Your task to perform on an android device: WHat are the new products by Samsung on eBay? Image 0: 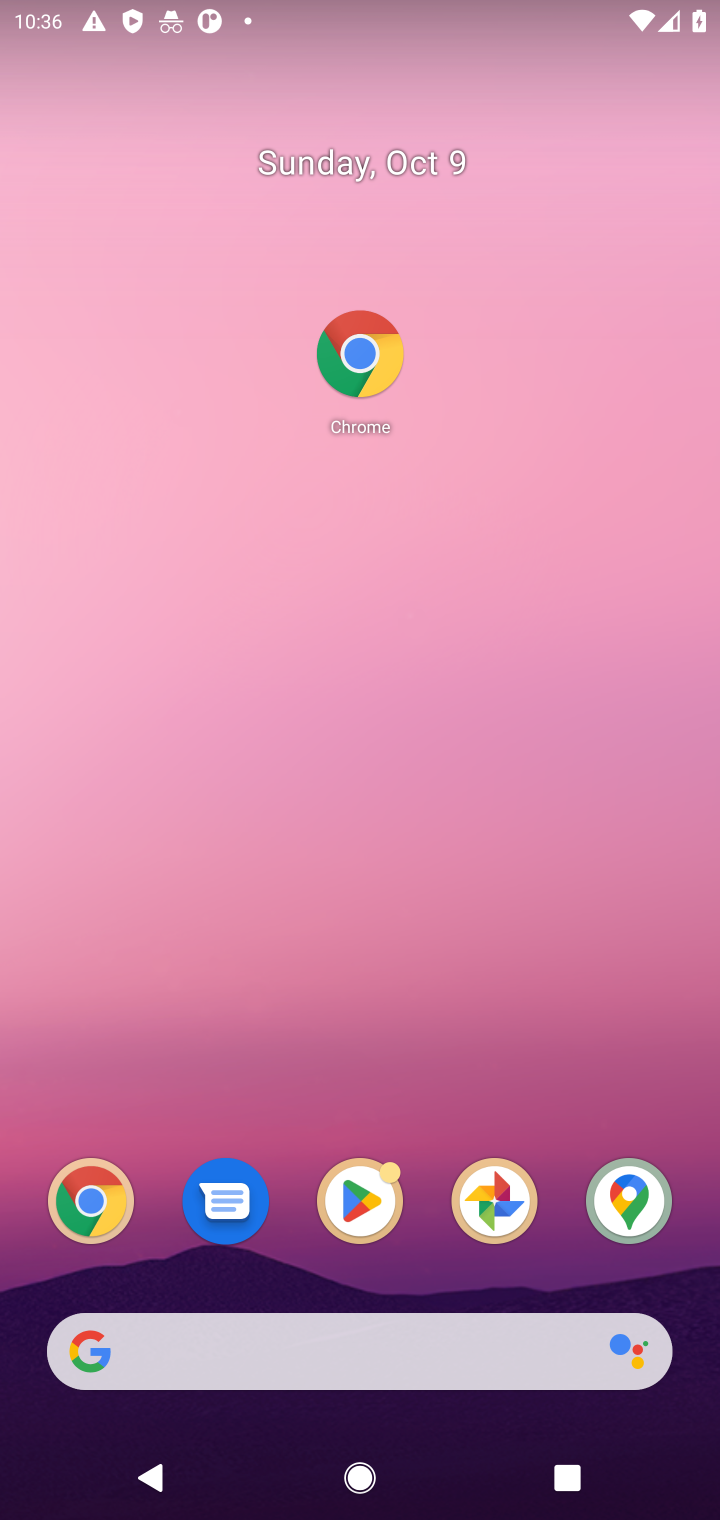
Step 0: click (73, 1211)
Your task to perform on an android device: WHat are the new products by Samsung on eBay? Image 1: 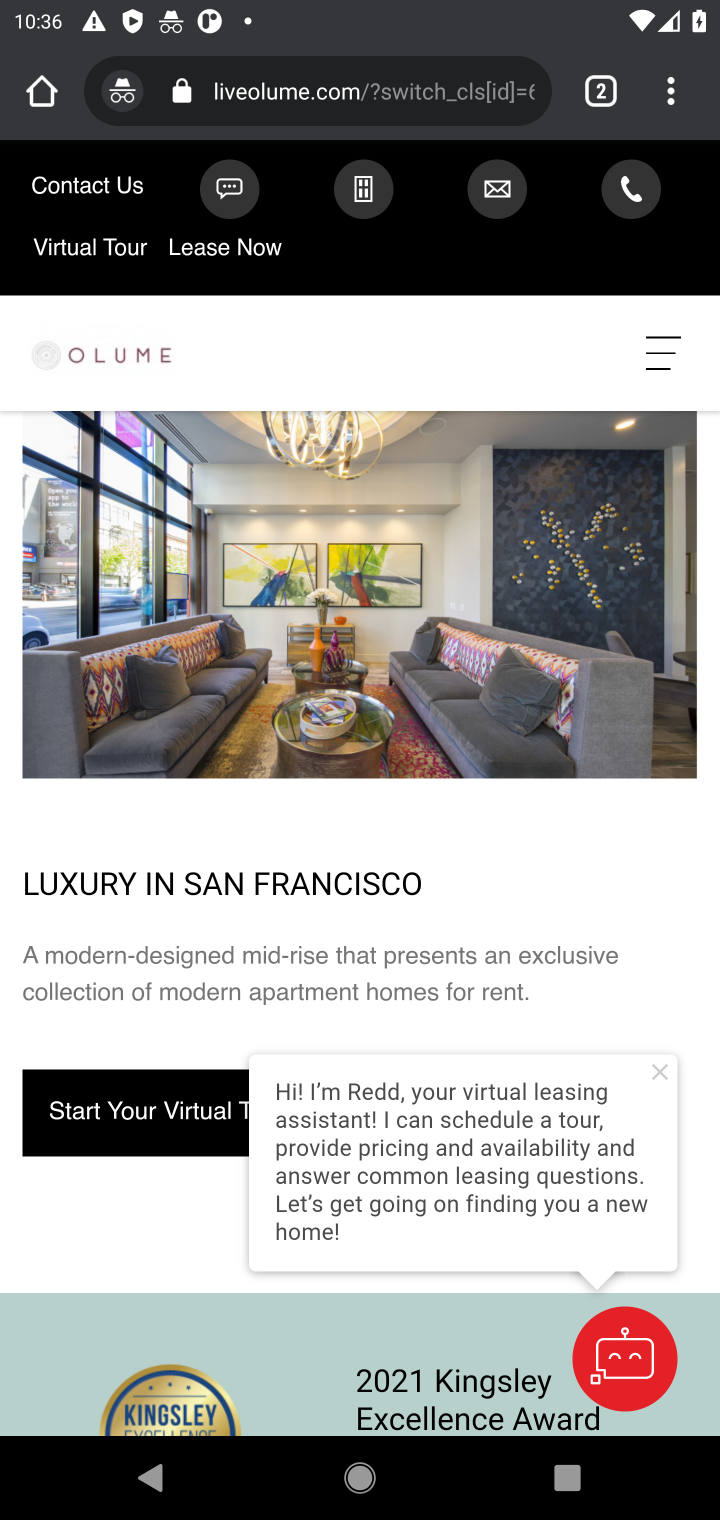
Step 1: click (333, 89)
Your task to perform on an android device: WHat are the new products by Samsung on eBay? Image 2: 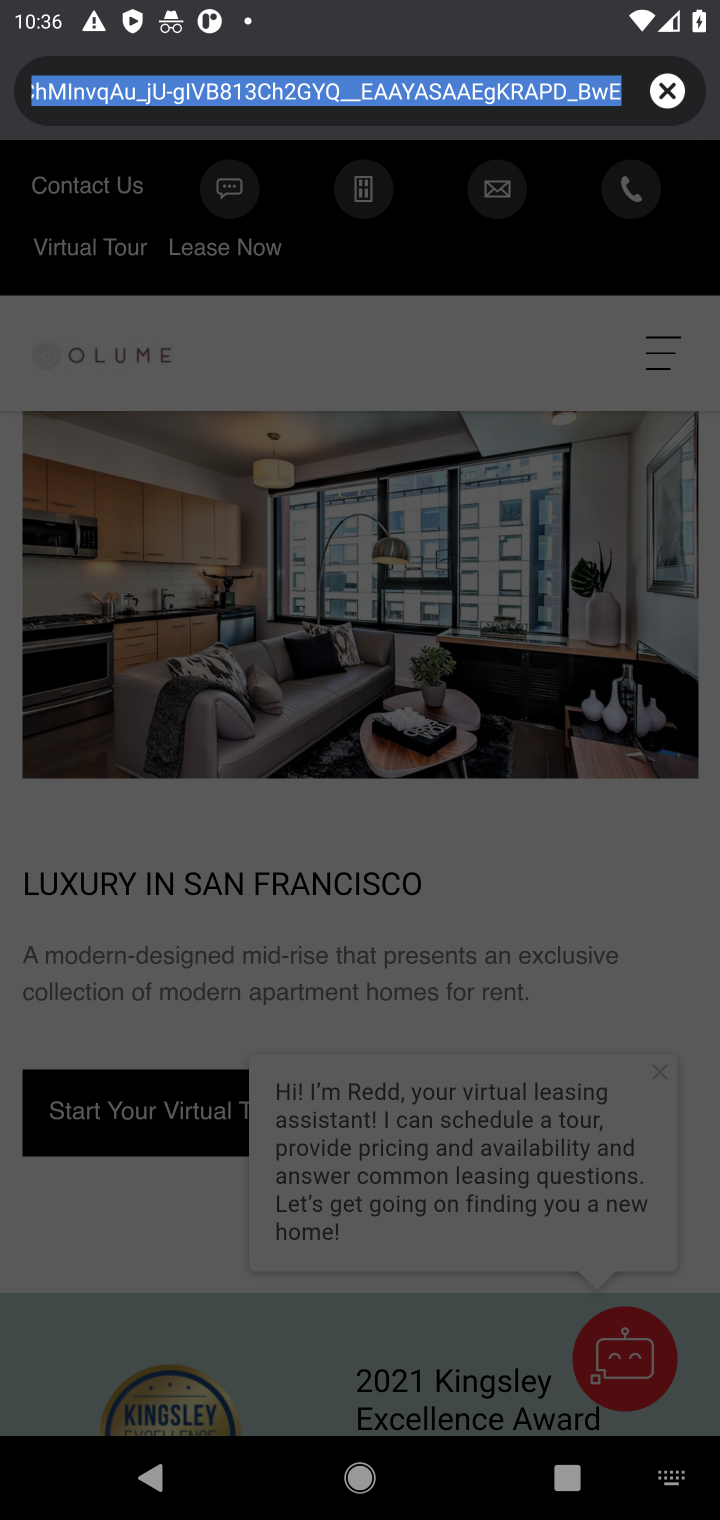
Step 2: type "WHat are the new products by Samsung on eBay?"
Your task to perform on an android device: WHat are the new products by Samsung on eBay? Image 3: 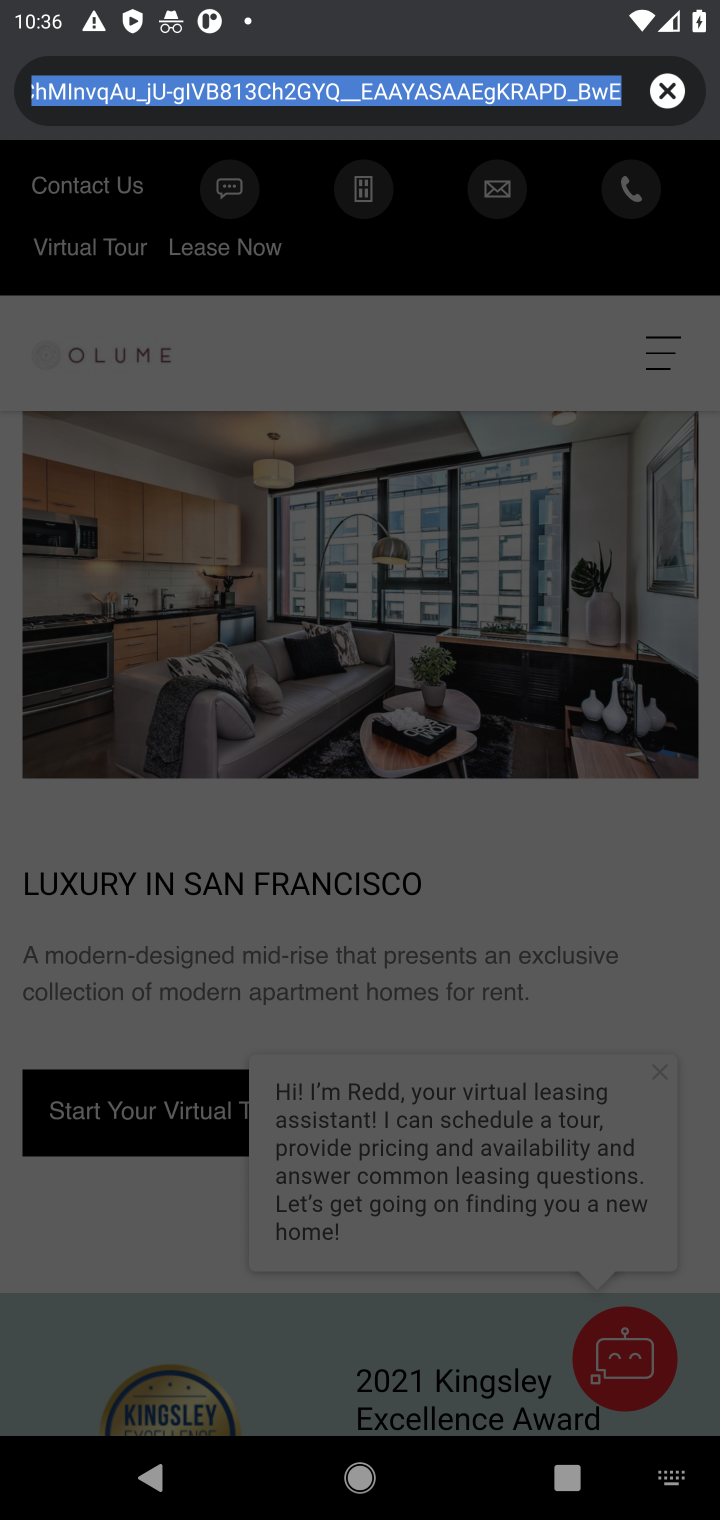
Step 3: click (421, 102)
Your task to perform on an android device: WHat are the new products by Samsung on eBay? Image 4: 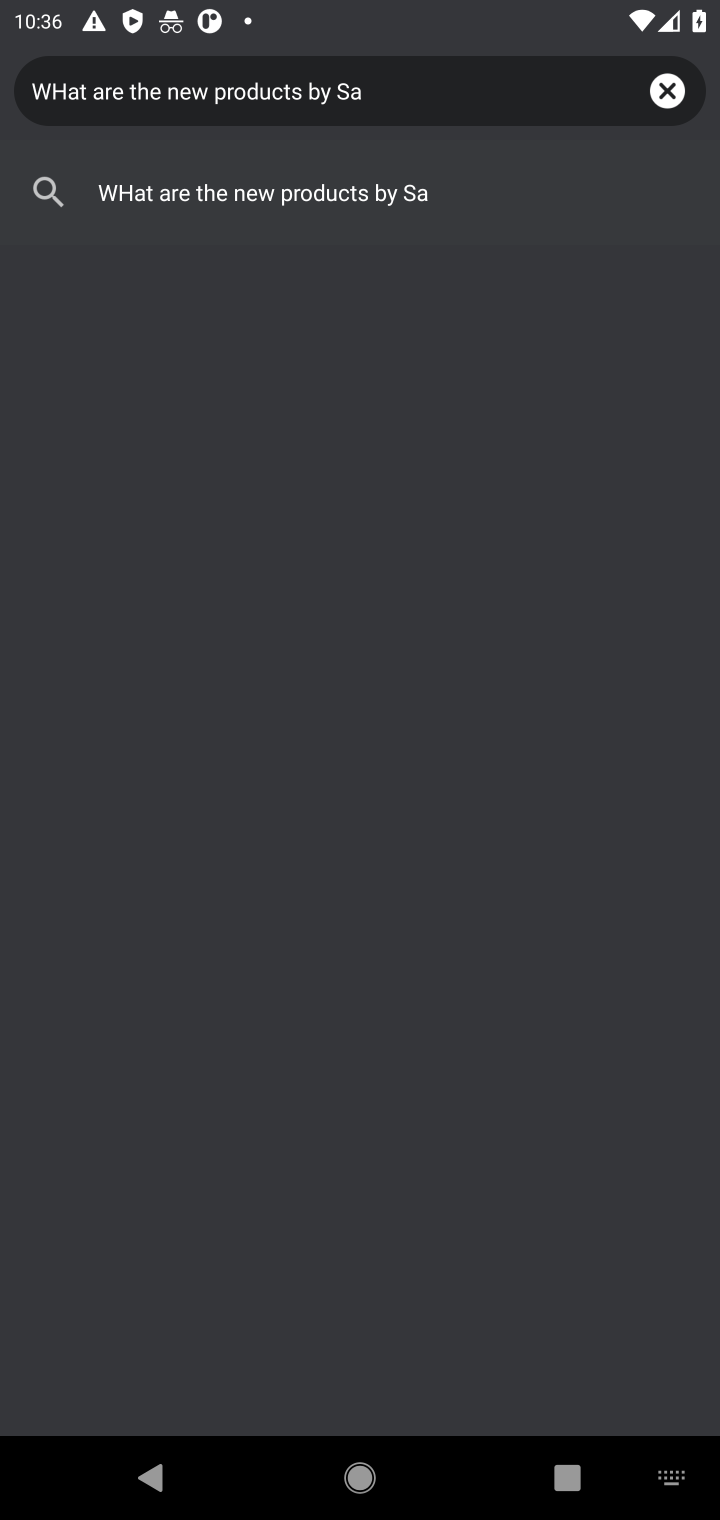
Step 4: click (460, 85)
Your task to perform on an android device: WHat are the new products by Samsung on eBay? Image 5: 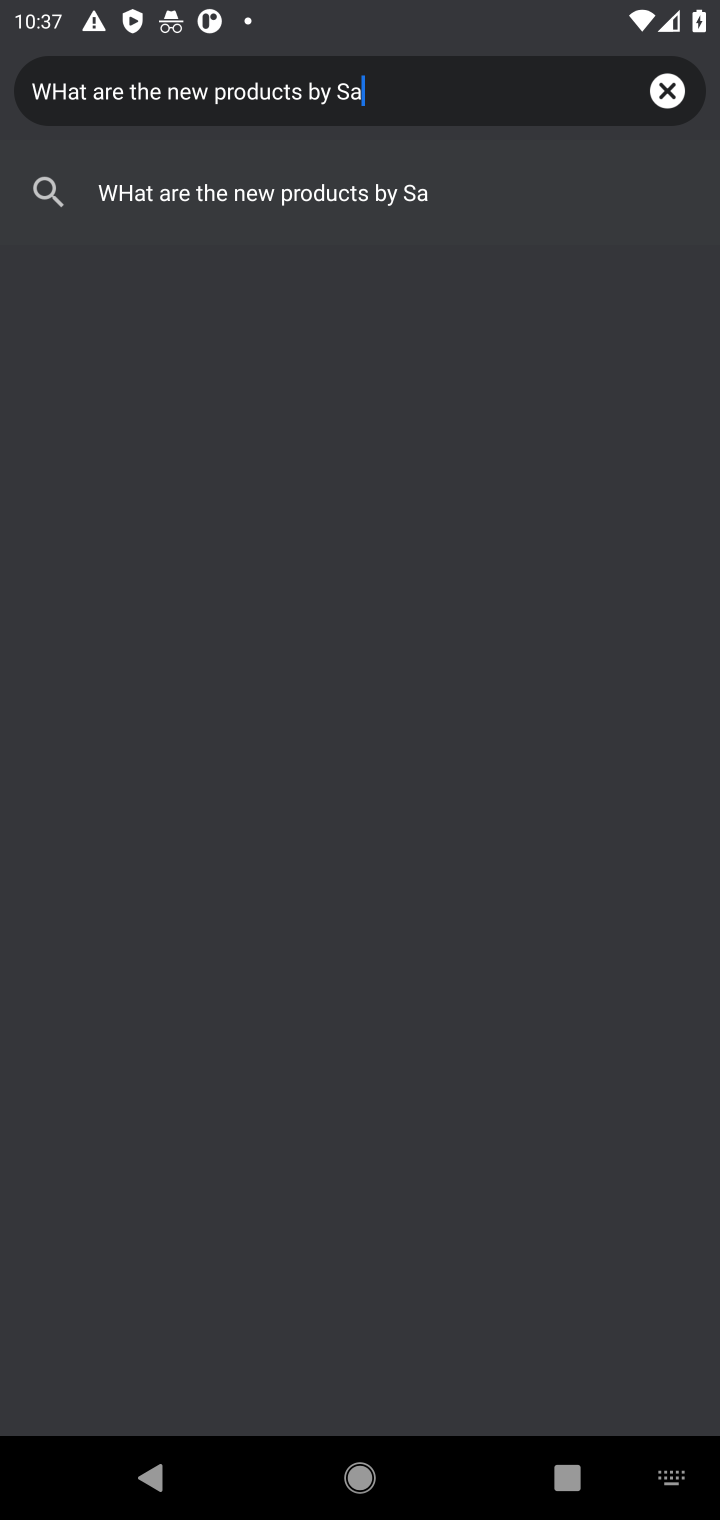
Step 5: type "msung on eBay ?"
Your task to perform on an android device: WHat are the new products by Samsung on eBay? Image 6: 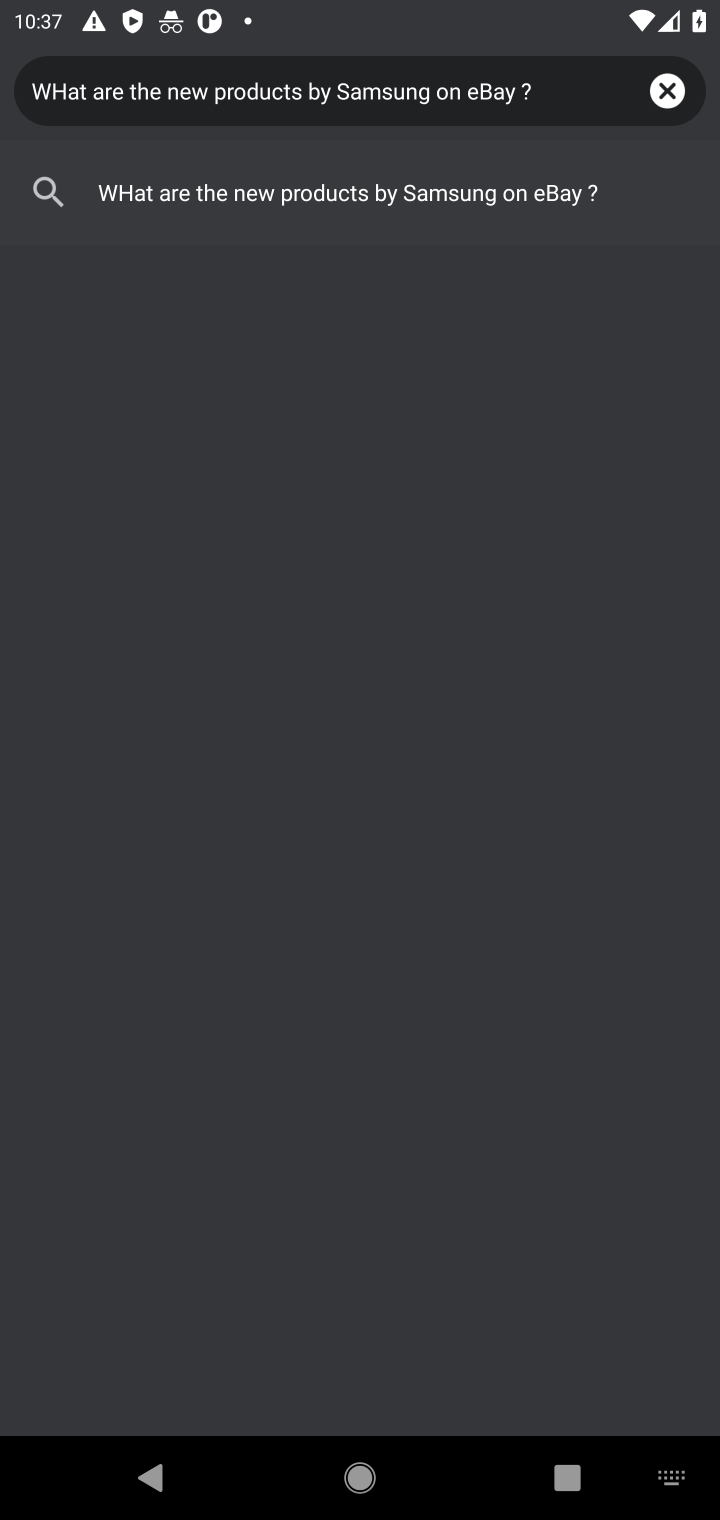
Step 6: click (502, 187)
Your task to perform on an android device: WHat are the new products by Samsung on eBay? Image 7: 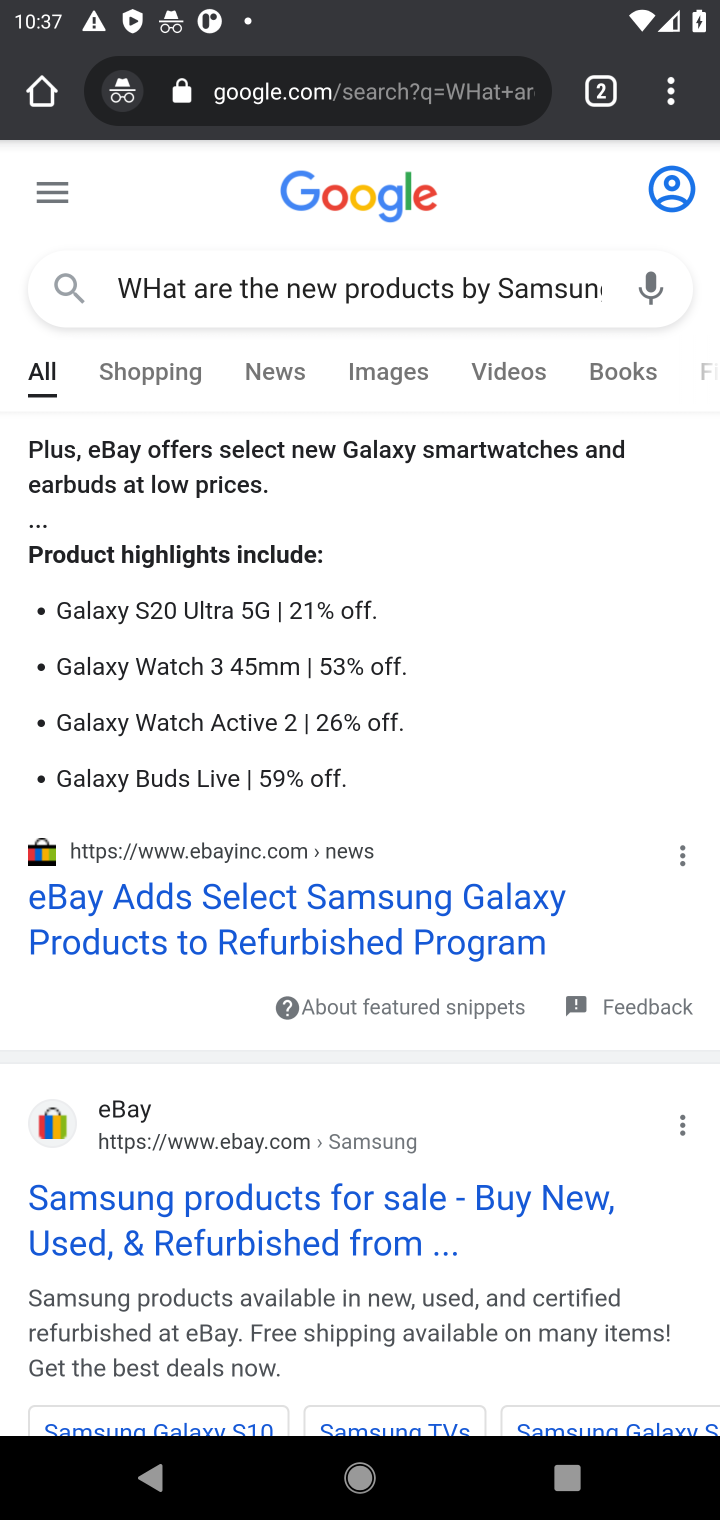
Step 7: task complete